Your task to perform on an android device: turn on javascript in the chrome app Image 0: 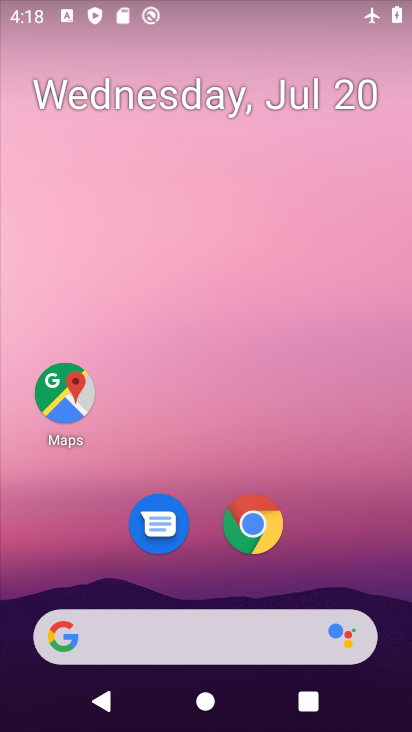
Step 0: click (270, 520)
Your task to perform on an android device: turn on javascript in the chrome app Image 1: 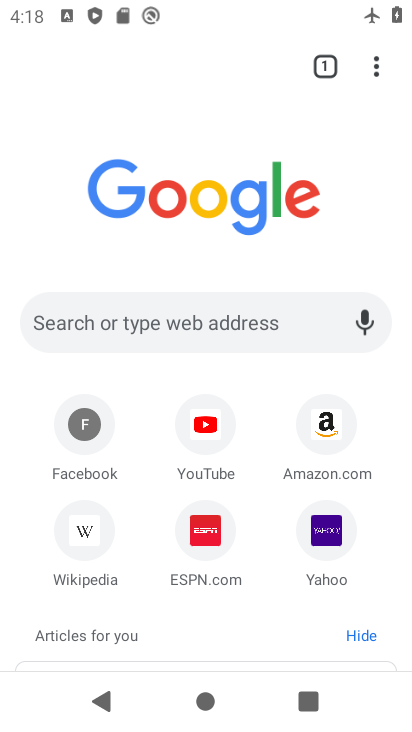
Step 1: click (376, 70)
Your task to perform on an android device: turn on javascript in the chrome app Image 2: 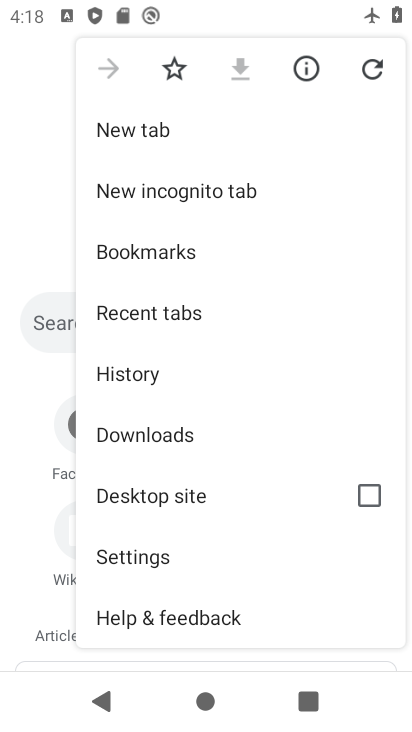
Step 2: click (161, 558)
Your task to perform on an android device: turn on javascript in the chrome app Image 3: 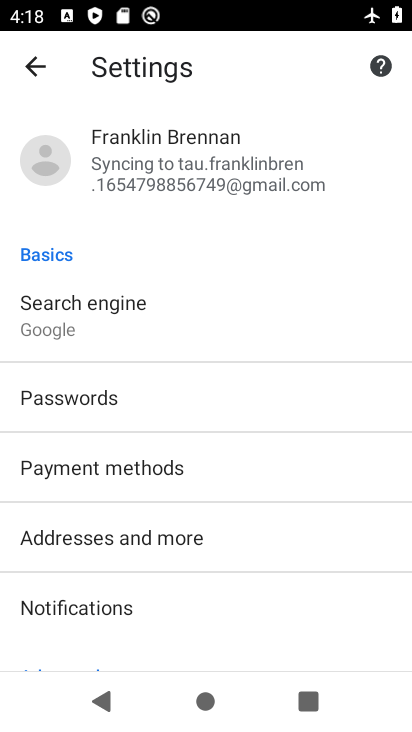
Step 3: drag from (248, 601) to (289, 180)
Your task to perform on an android device: turn on javascript in the chrome app Image 4: 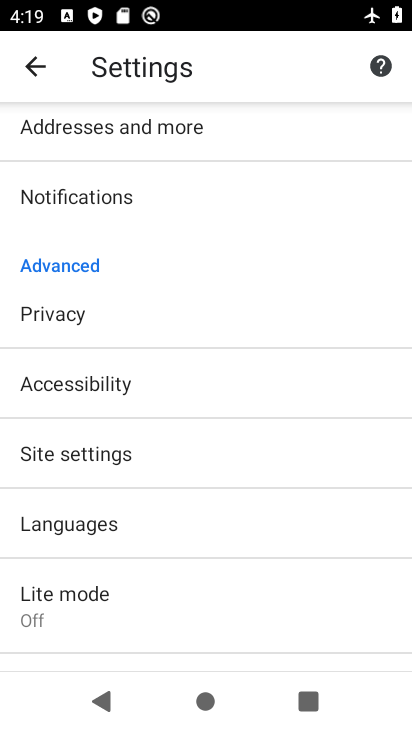
Step 4: click (115, 450)
Your task to perform on an android device: turn on javascript in the chrome app Image 5: 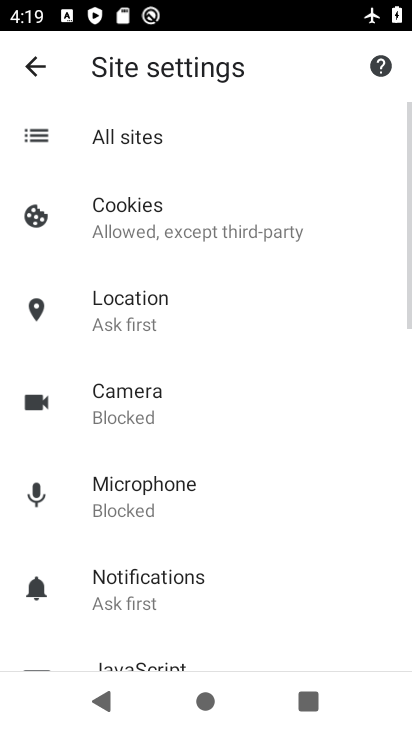
Step 5: drag from (223, 547) to (236, 335)
Your task to perform on an android device: turn on javascript in the chrome app Image 6: 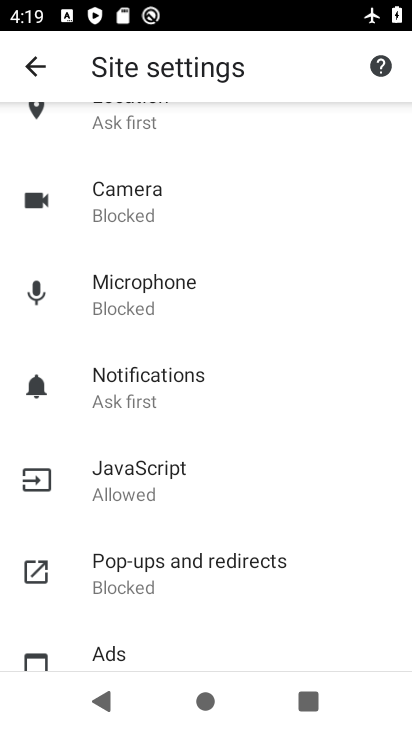
Step 6: click (169, 467)
Your task to perform on an android device: turn on javascript in the chrome app Image 7: 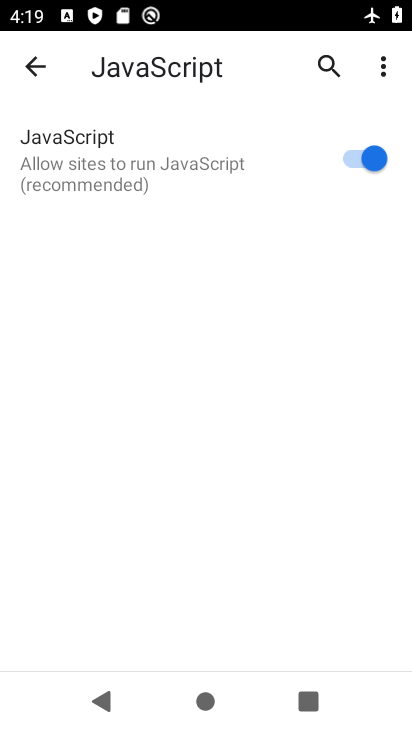
Step 7: task complete